Your task to perform on an android device: open a bookmark in the chrome app Image 0: 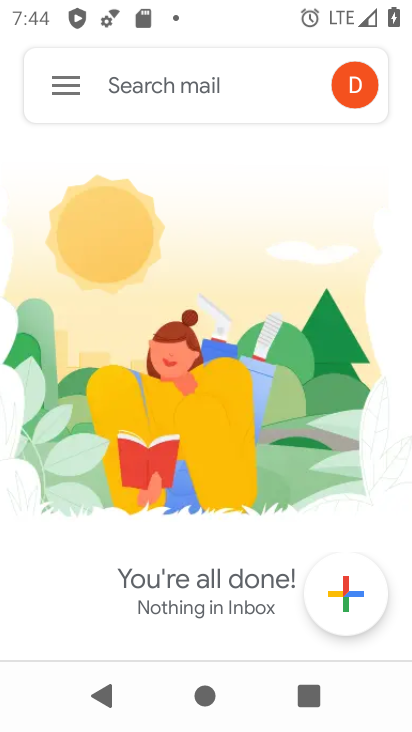
Step 0: press home button
Your task to perform on an android device: open a bookmark in the chrome app Image 1: 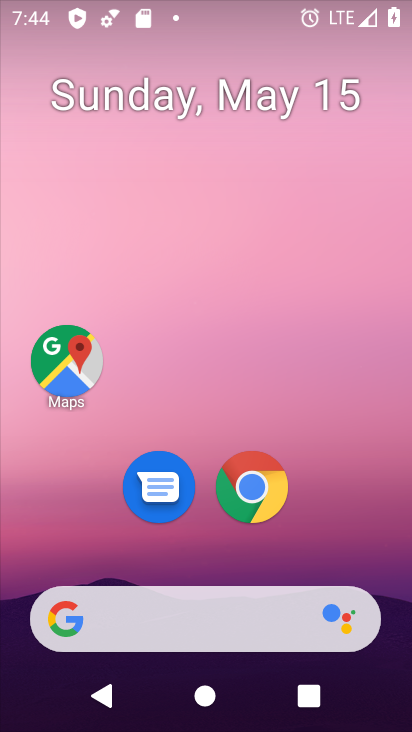
Step 1: drag from (349, 541) to (329, 94)
Your task to perform on an android device: open a bookmark in the chrome app Image 2: 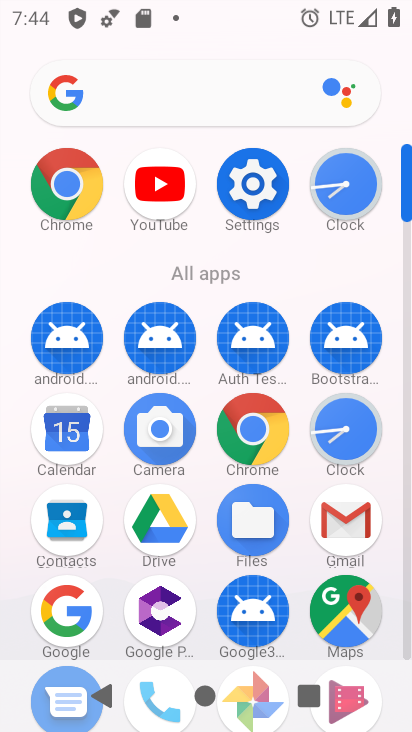
Step 2: drag from (288, 509) to (294, 315)
Your task to perform on an android device: open a bookmark in the chrome app Image 3: 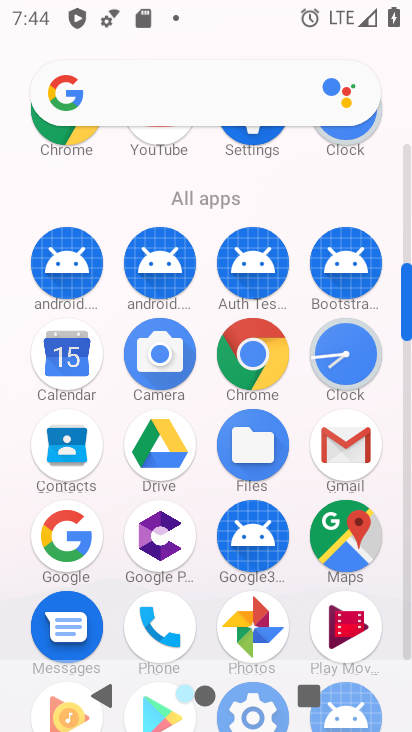
Step 3: click (227, 362)
Your task to perform on an android device: open a bookmark in the chrome app Image 4: 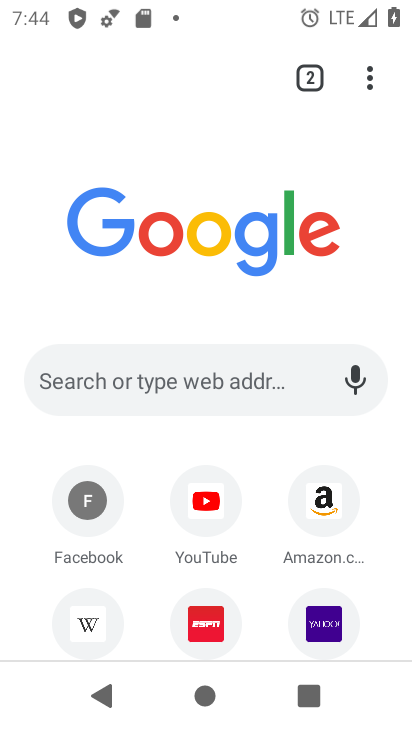
Step 4: task complete